Your task to perform on an android device: Open Youtube and go to the subscriptions tab Image 0: 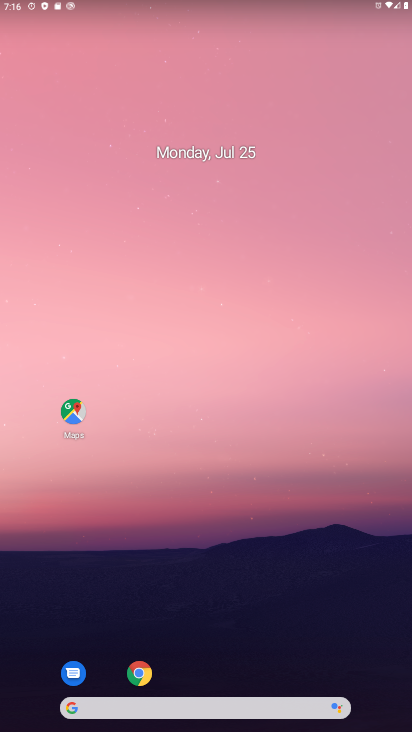
Step 0: drag from (266, 591) to (212, 0)
Your task to perform on an android device: Open Youtube and go to the subscriptions tab Image 1: 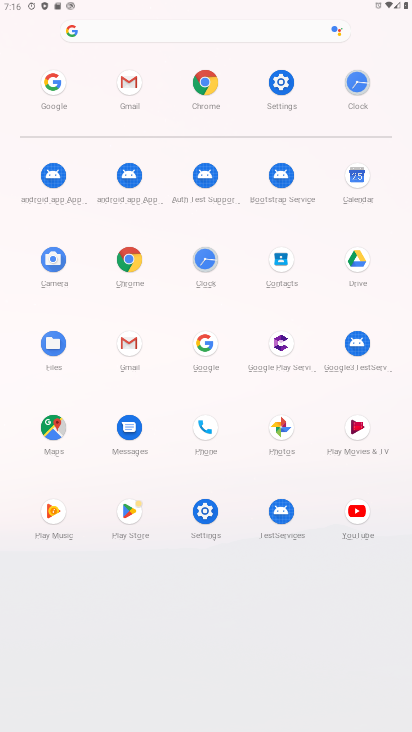
Step 1: click (356, 510)
Your task to perform on an android device: Open Youtube and go to the subscriptions tab Image 2: 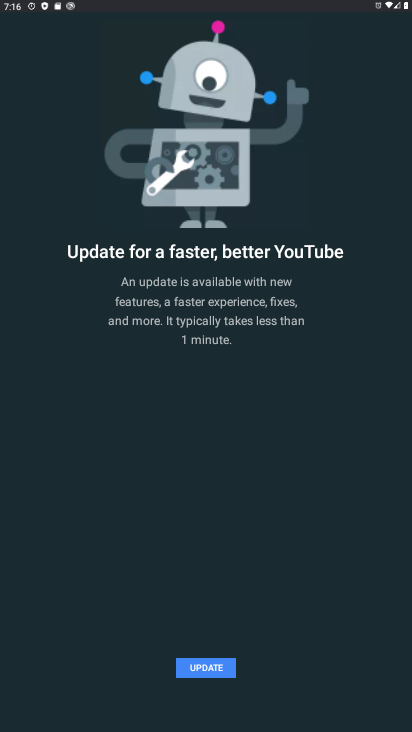
Step 2: click (187, 674)
Your task to perform on an android device: Open Youtube and go to the subscriptions tab Image 3: 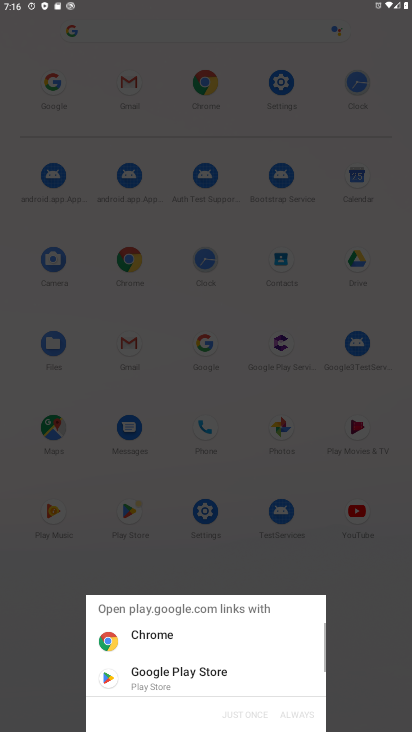
Step 3: click (166, 671)
Your task to perform on an android device: Open Youtube and go to the subscriptions tab Image 4: 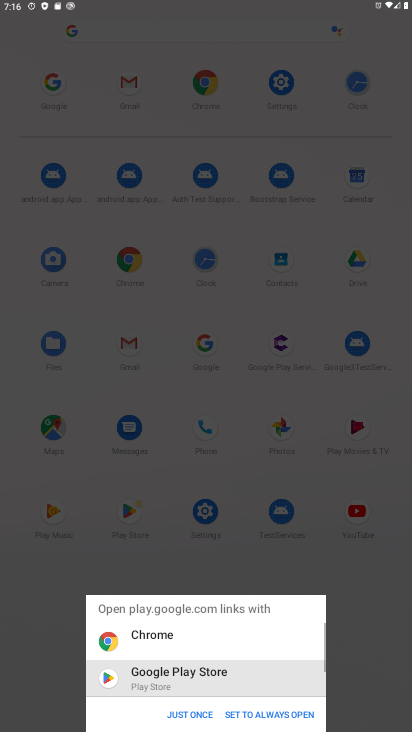
Step 4: click (180, 714)
Your task to perform on an android device: Open Youtube and go to the subscriptions tab Image 5: 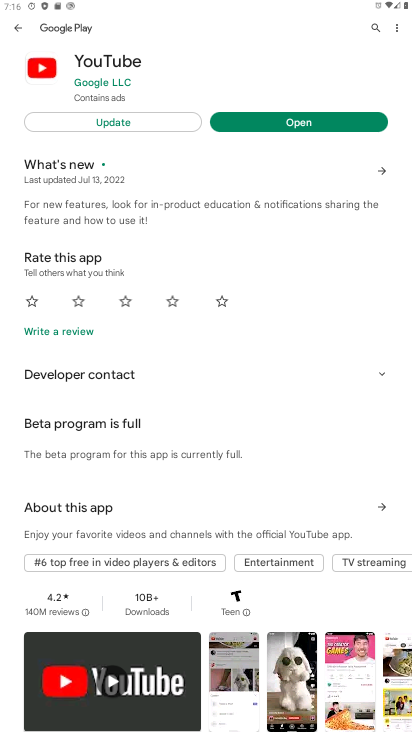
Step 5: click (112, 124)
Your task to perform on an android device: Open Youtube and go to the subscriptions tab Image 6: 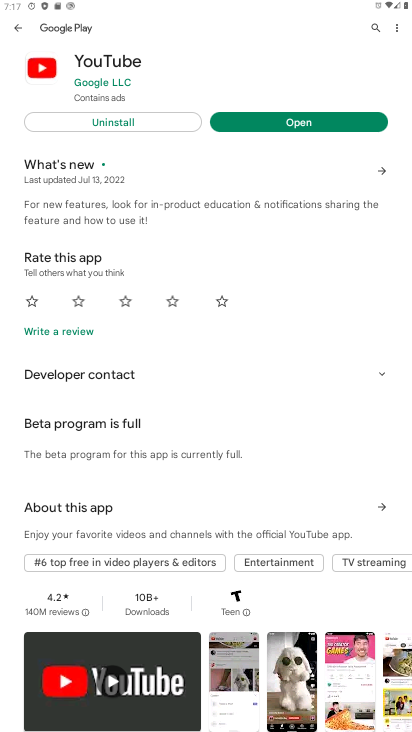
Step 6: click (305, 125)
Your task to perform on an android device: Open Youtube and go to the subscriptions tab Image 7: 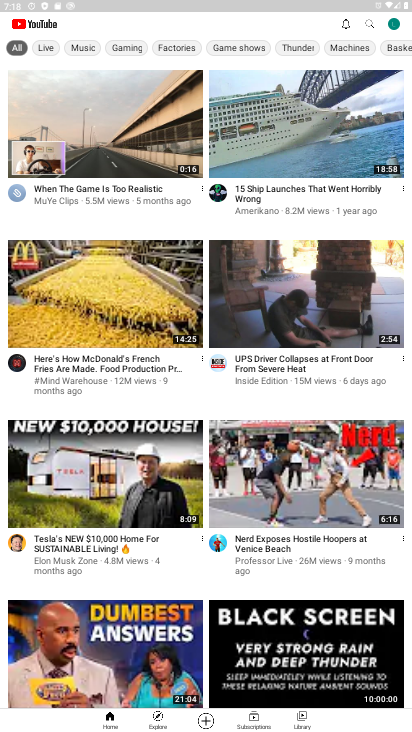
Step 7: press home button
Your task to perform on an android device: Open Youtube and go to the subscriptions tab Image 8: 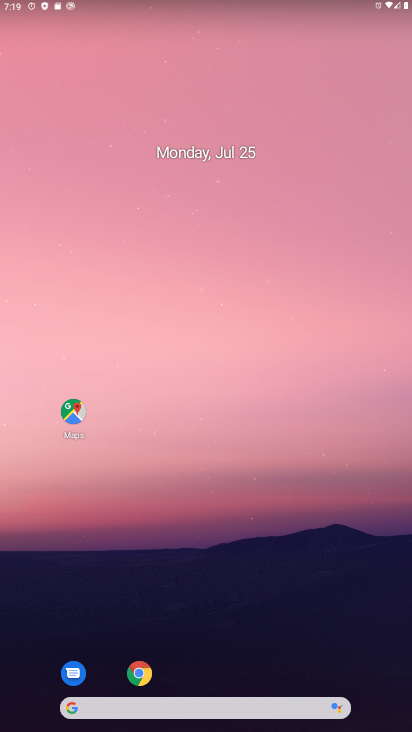
Step 8: drag from (363, 628) to (163, 0)
Your task to perform on an android device: Open Youtube and go to the subscriptions tab Image 9: 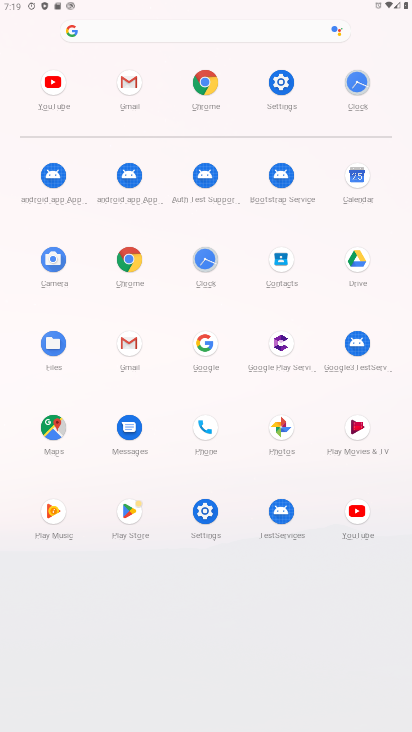
Step 9: click (355, 507)
Your task to perform on an android device: Open Youtube and go to the subscriptions tab Image 10: 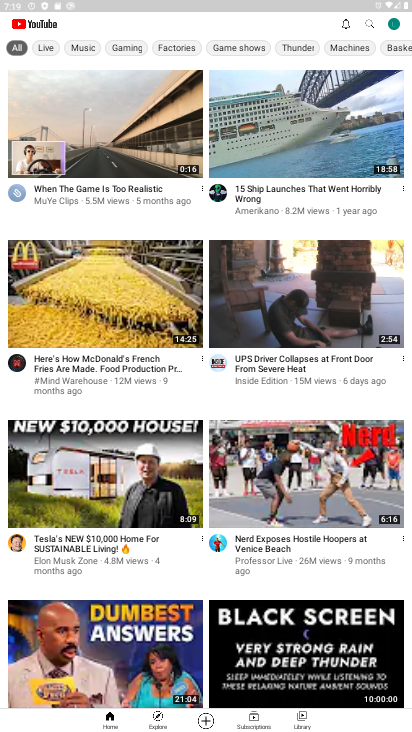
Step 10: click (258, 714)
Your task to perform on an android device: Open Youtube and go to the subscriptions tab Image 11: 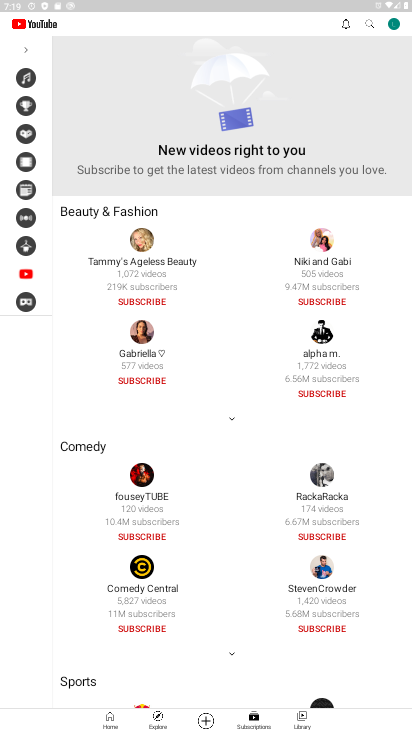
Step 11: task complete